Your task to perform on an android device: show emergency info Image 0: 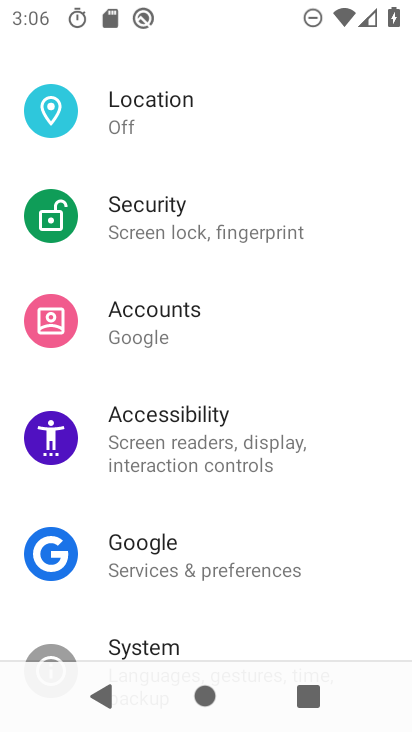
Step 0: drag from (300, 253) to (210, 683)
Your task to perform on an android device: show emergency info Image 1: 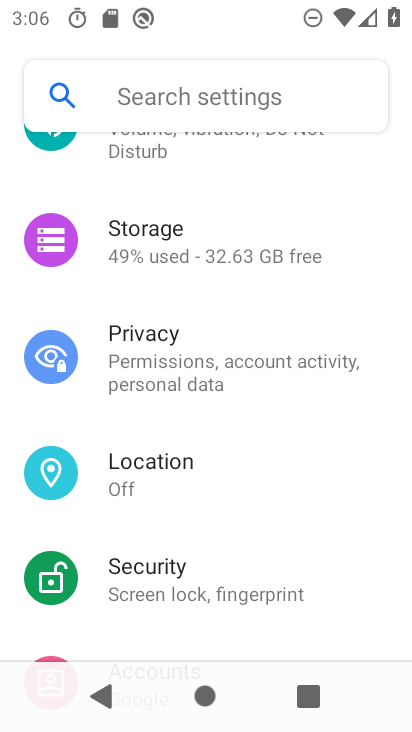
Step 1: drag from (202, 224) to (197, 557)
Your task to perform on an android device: show emergency info Image 2: 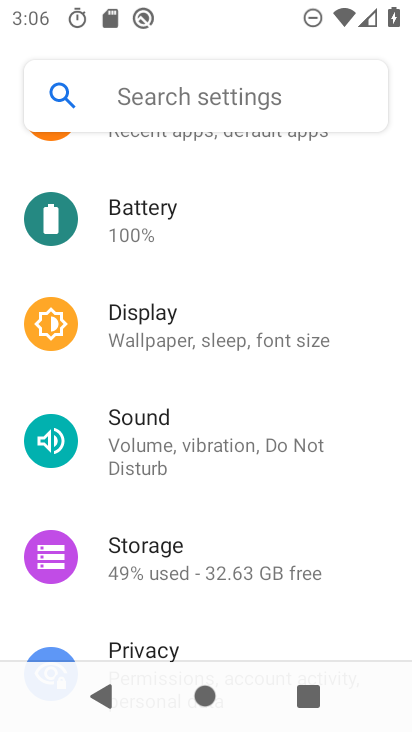
Step 2: drag from (222, 230) to (228, 630)
Your task to perform on an android device: show emergency info Image 3: 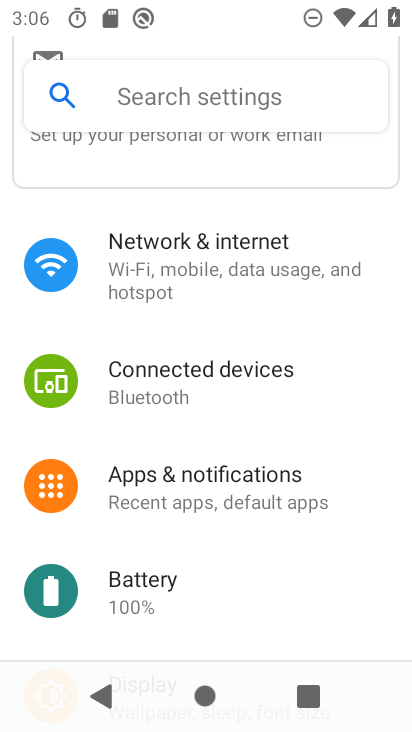
Step 3: drag from (189, 572) to (301, 2)
Your task to perform on an android device: show emergency info Image 4: 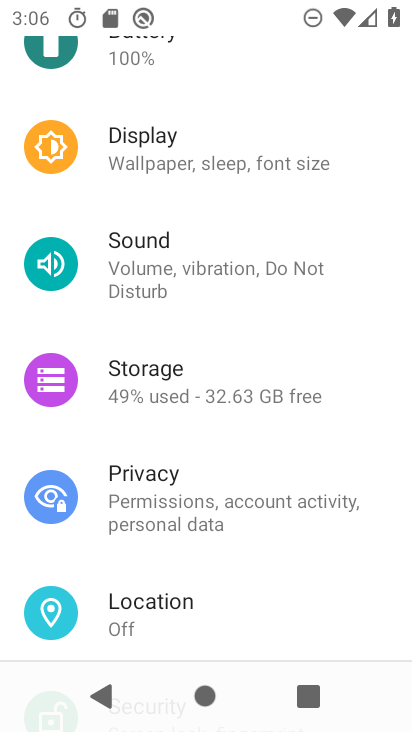
Step 4: drag from (197, 552) to (321, 18)
Your task to perform on an android device: show emergency info Image 5: 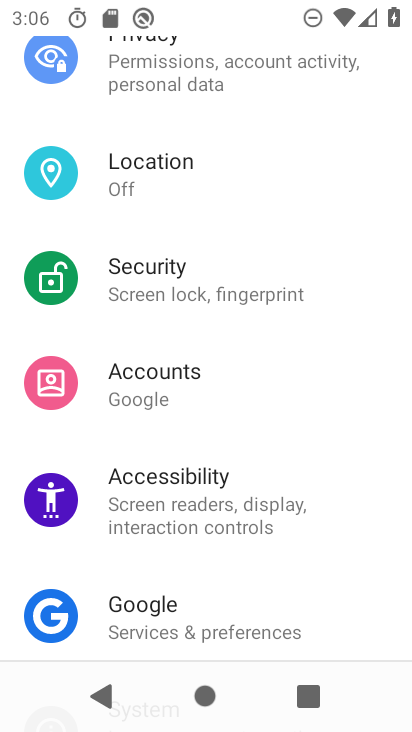
Step 5: drag from (206, 556) to (290, 73)
Your task to perform on an android device: show emergency info Image 6: 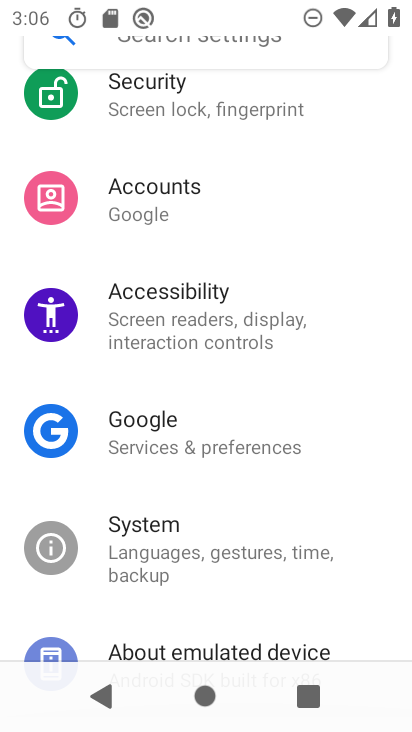
Step 6: drag from (145, 631) to (284, 13)
Your task to perform on an android device: show emergency info Image 7: 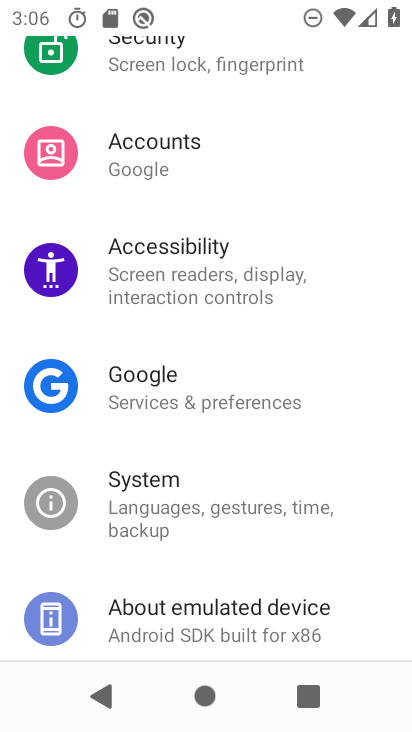
Step 7: click (219, 608)
Your task to perform on an android device: show emergency info Image 8: 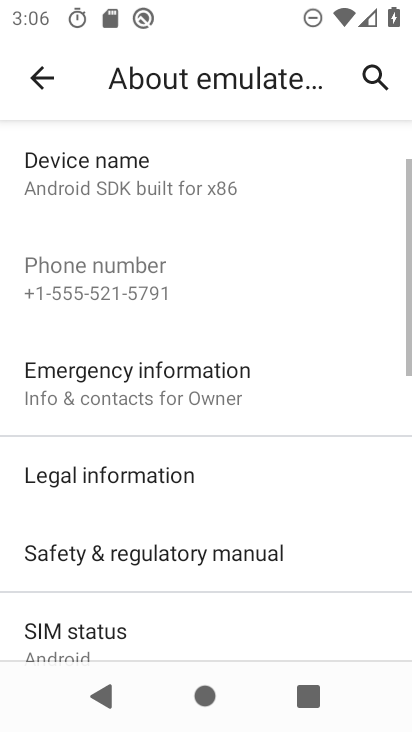
Step 8: click (164, 410)
Your task to perform on an android device: show emergency info Image 9: 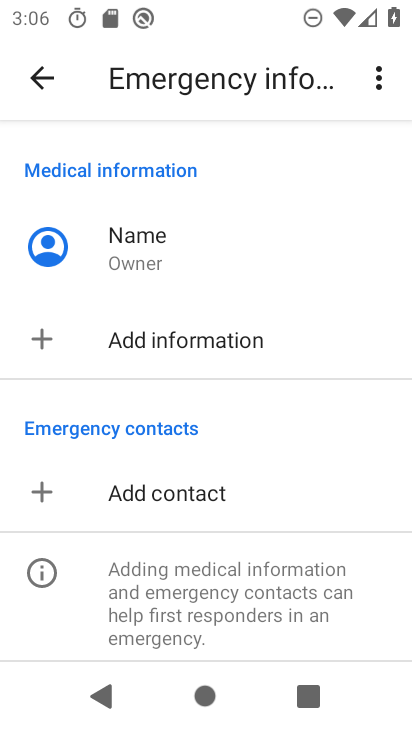
Step 9: task complete